Your task to perform on an android device: Go to Reddit.com Image 0: 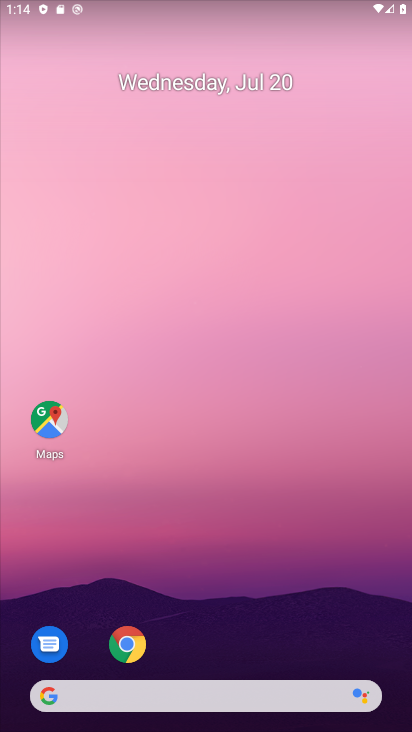
Step 0: press home button
Your task to perform on an android device: Go to Reddit.com Image 1: 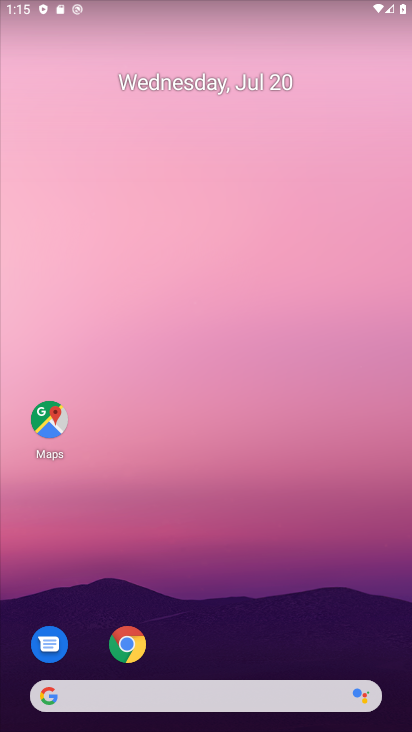
Step 1: click (50, 691)
Your task to perform on an android device: Go to Reddit.com Image 2: 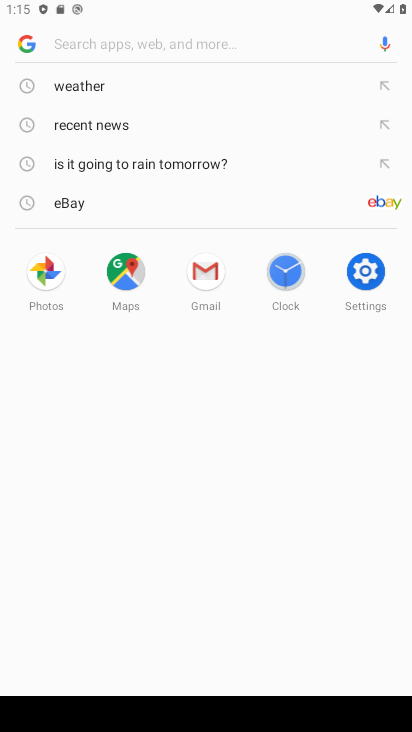
Step 2: type "Reddit.com"
Your task to perform on an android device: Go to Reddit.com Image 3: 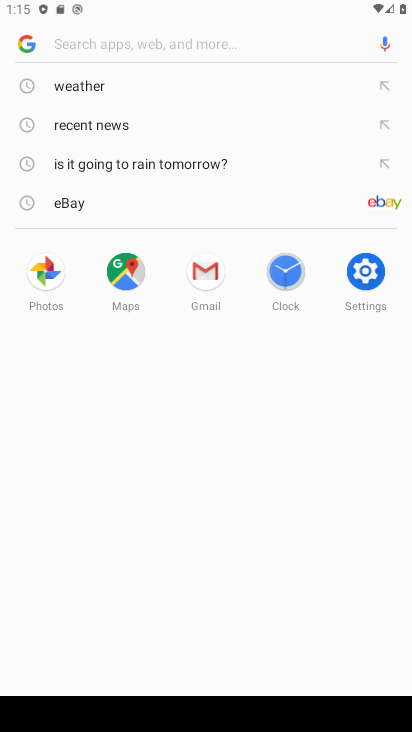
Step 3: click (105, 40)
Your task to perform on an android device: Go to Reddit.com Image 4: 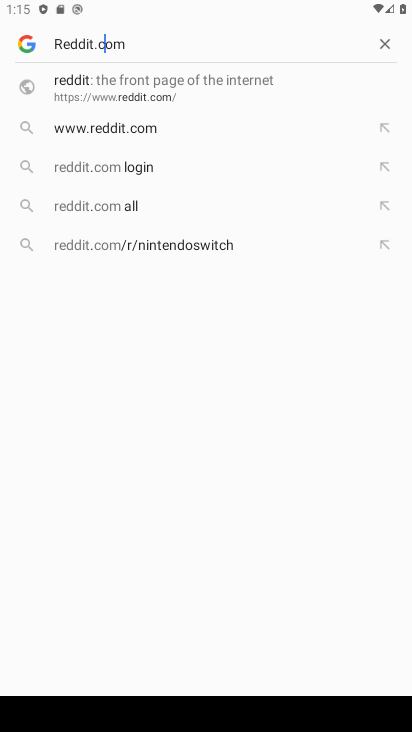
Step 4: press enter
Your task to perform on an android device: Go to Reddit.com Image 5: 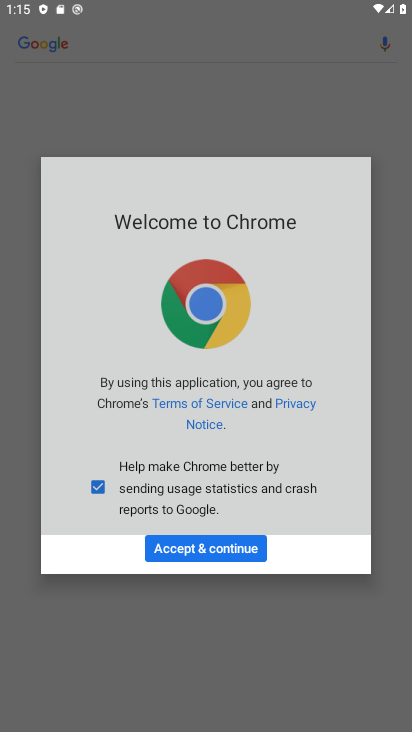
Step 5: click (189, 554)
Your task to perform on an android device: Go to Reddit.com Image 6: 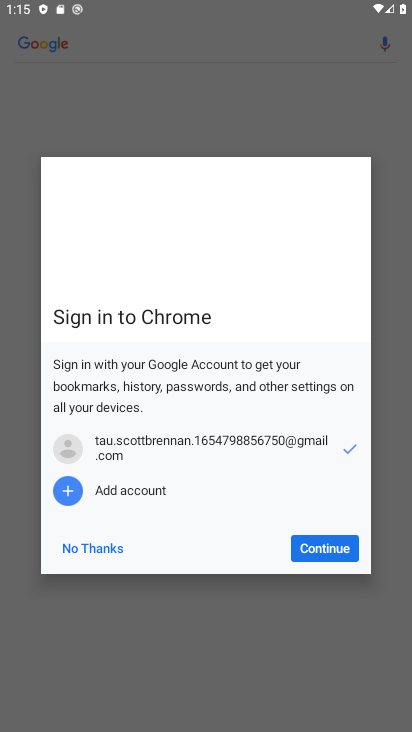
Step 6: click (331, 552)
Your task to perform on an android device: Go to Reddit.com Image 7: 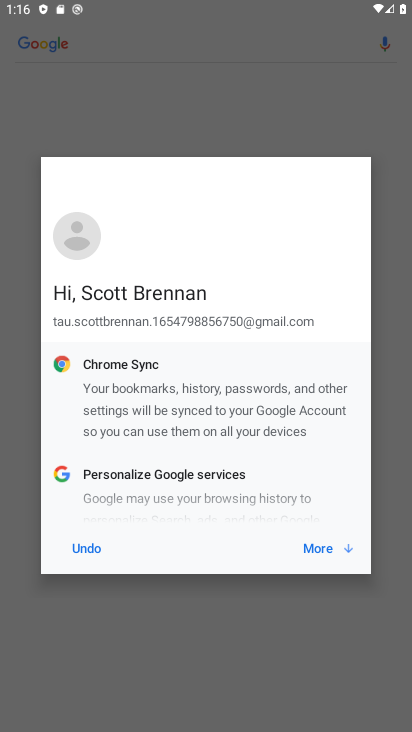
Step 7: click (306, 552)
Your task to perform on an android device: Go to Reddit.com Image 8: 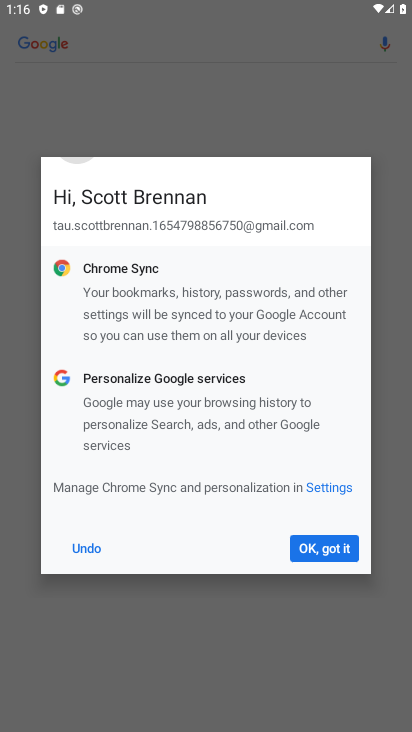
Step 8: click (347, 547)
Your task to perform on an android device: Go to Reddit.com Image 9: 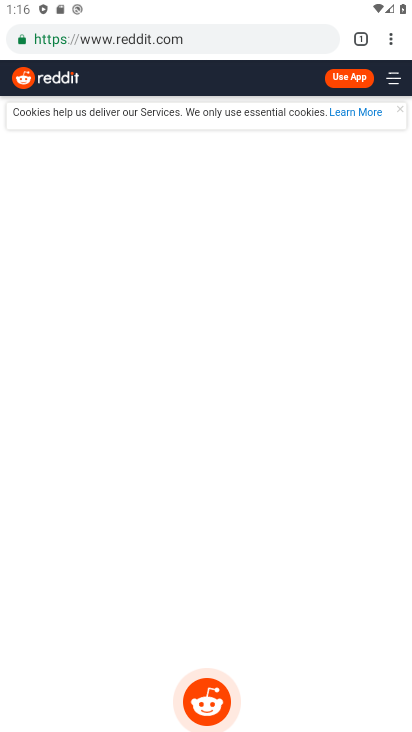
Step 9: task complete